Your task to perform on an android device: Open privacy settings Image 0: 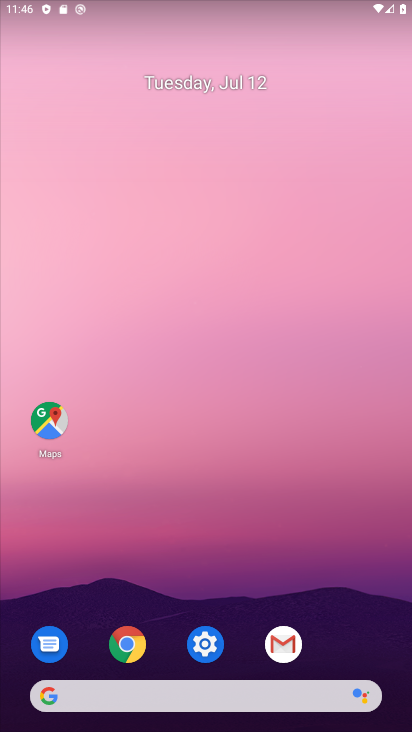
Step 0: click (195, 640)
Your task to perform on an android device: Open privacy settings Image 1: 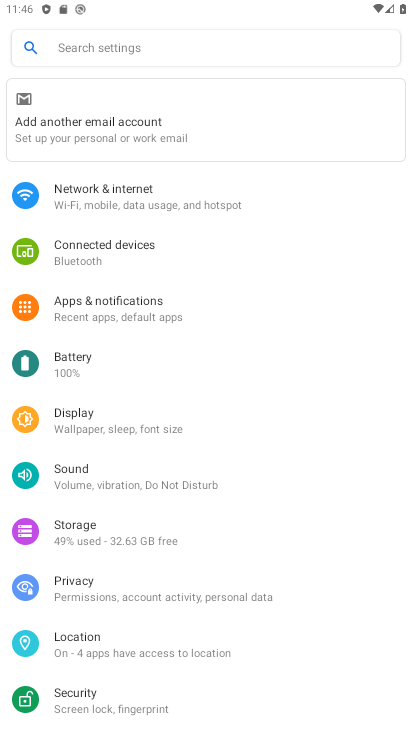
Step 1: click (101, 580)
Your task to perform on an android device: Open privacy settings Image 2: 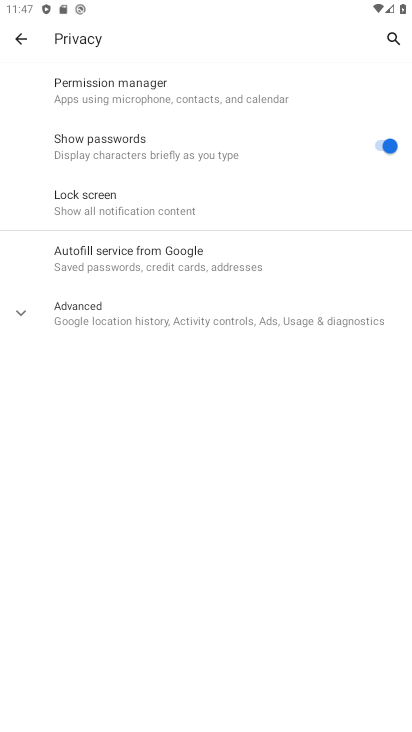
Step 2: task complete